Your task to perform on an android device: delete location history Image 0: 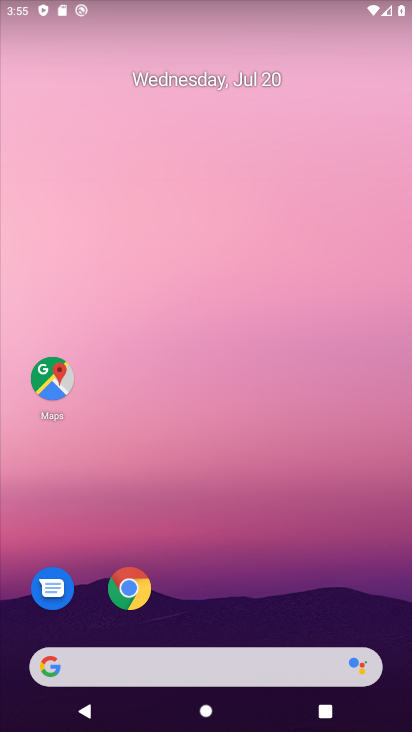
Step 0: drag from (220, 586) to (277, 225)
Your task to perform on an android device: delete location history Image 1: 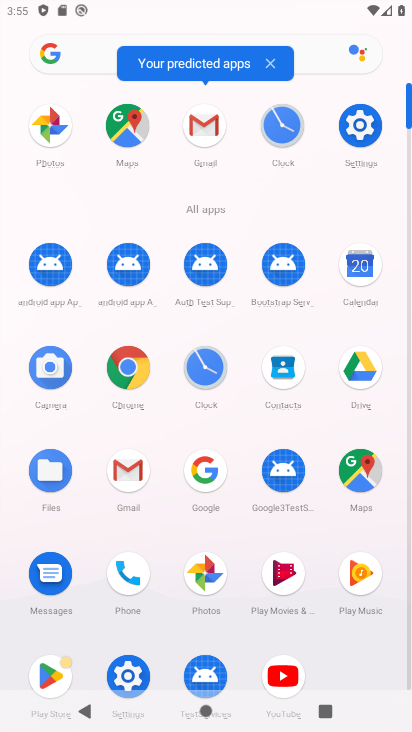
Step 1: click (135, 677)
Your task to perform on an android device: delete location history Image 2: 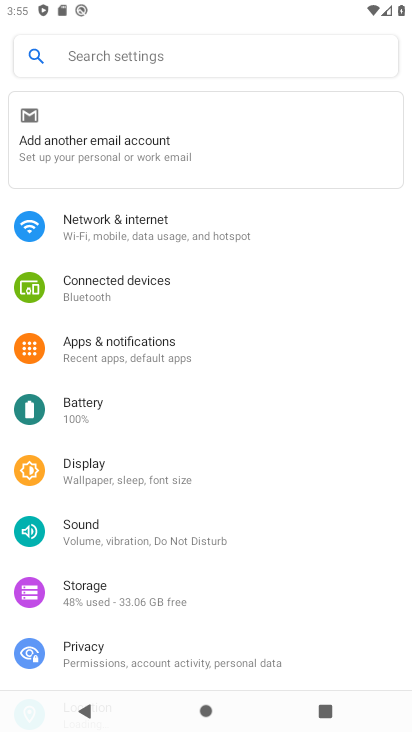
Step 2: drag from (112, 647) to (191, 374)
Your task to perform on an android device: delete location history Image 3: 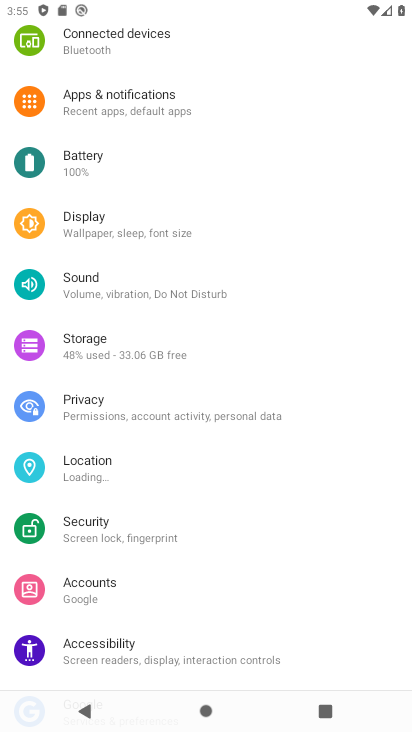
Step 3: click (126, 470)
Your task to perform on an android device: delete location history Image 4: 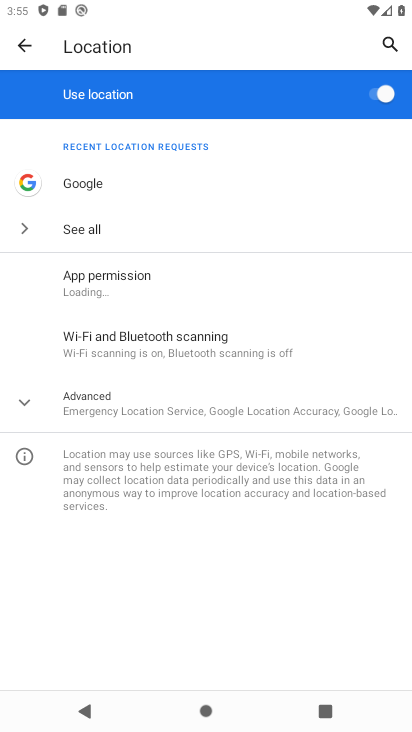
Step 4: click (155, 408)
Your task to perform on an android device: delete location history Image 5: 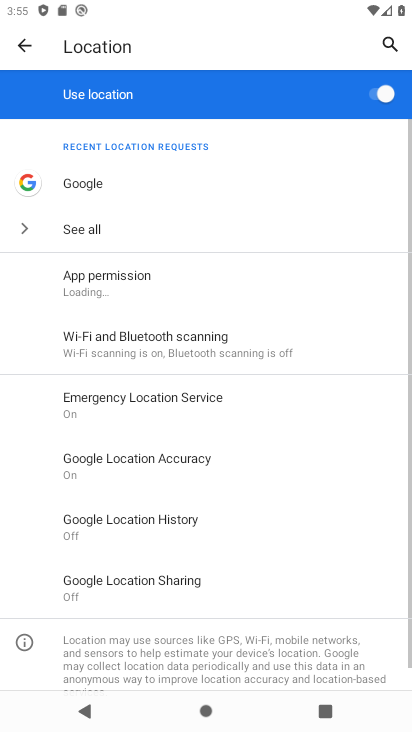
Step 5: drag from (167, 629) to (246, 423)
Your task to perform on an android device: delete location history Image 6: 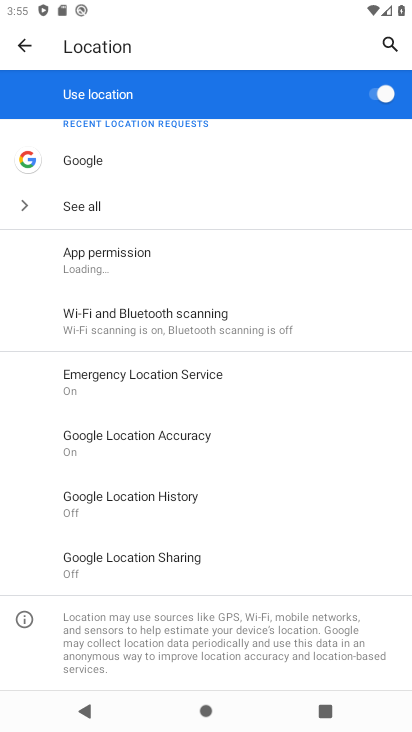
Step 6: click (158, 511)
Your task to perform on an android device: delete location history Image 7: 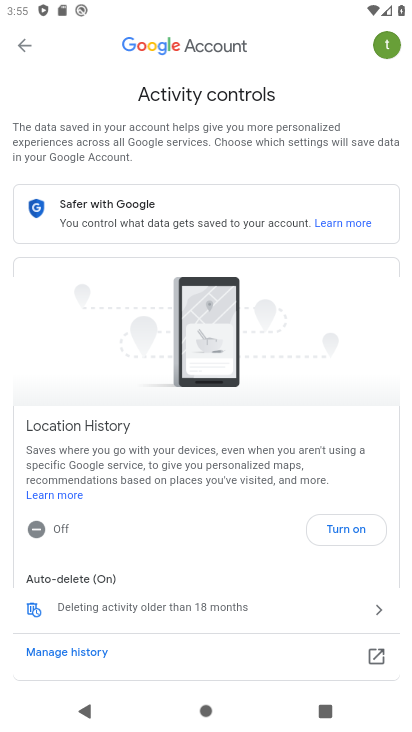
Step 7: click (74, 650)
Your task to perform on an android device: delete location history Image 8: 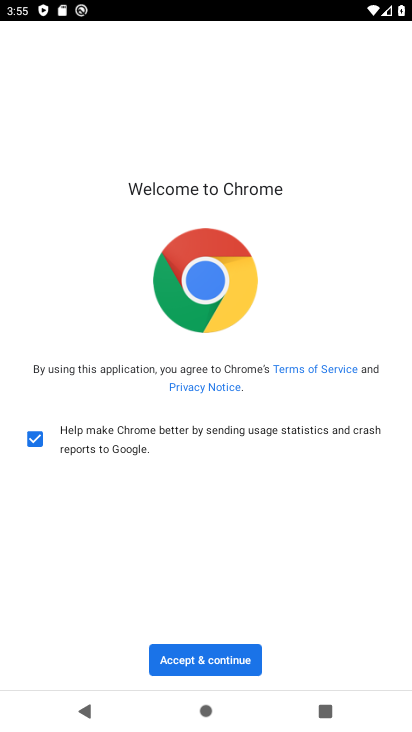
Step 8: click (220, 664)
Your task to perform on an android device: delete location history Image 9: 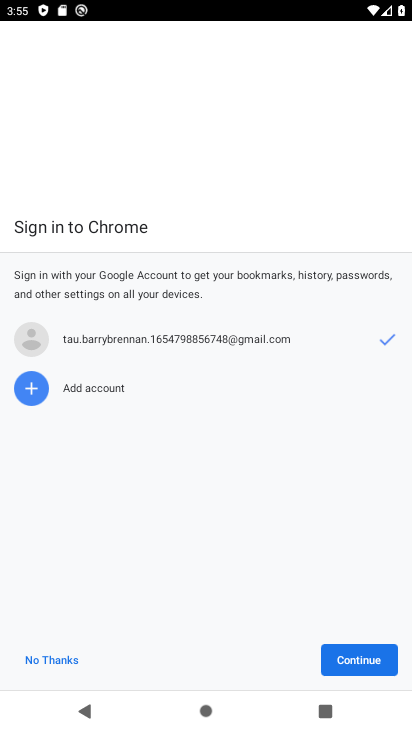
Step 9: click (394, 658)
Your task to perform on an android device: delete location history Image 10: 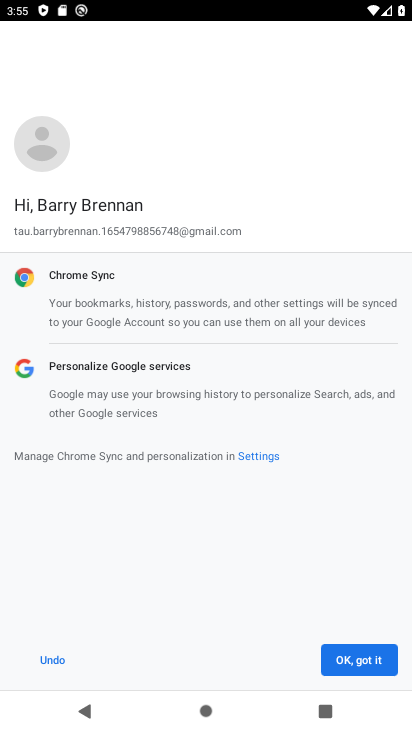
Step 10: click (377, 658)
Your task to perform on an android device: delete location history Image 11: 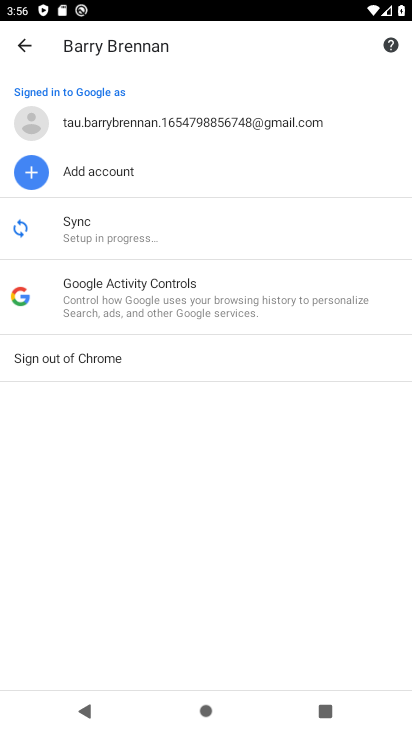
Step 11: press back button
Your task to perform on an android device: delete location history Image 12: 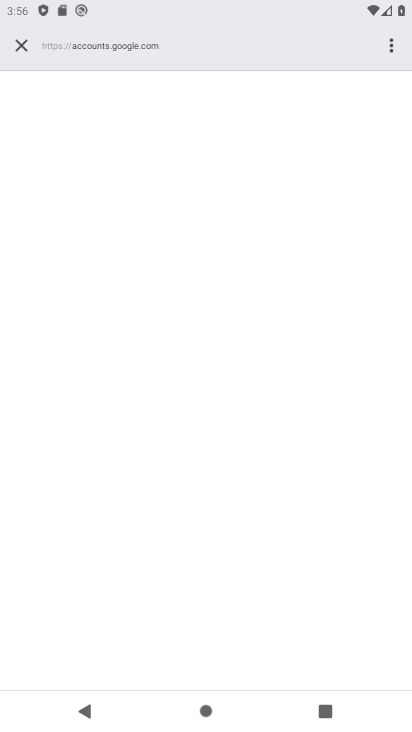
Step 12: press back button
Your task to perform on an android device: delete location history Image 13: 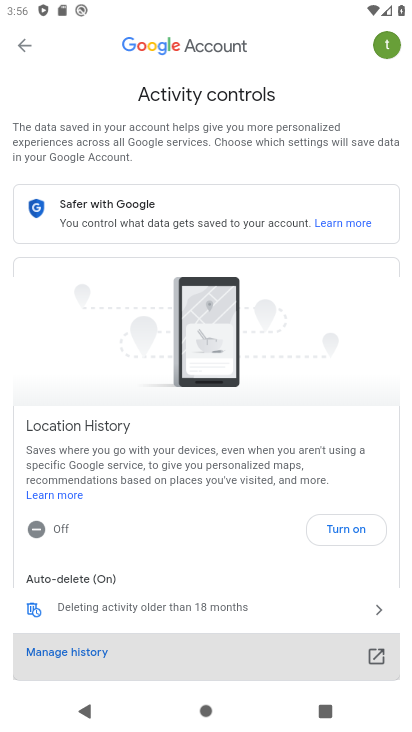
Step 13: click (83, 654)
Your task to perform on an android device: delete location history Image 14: 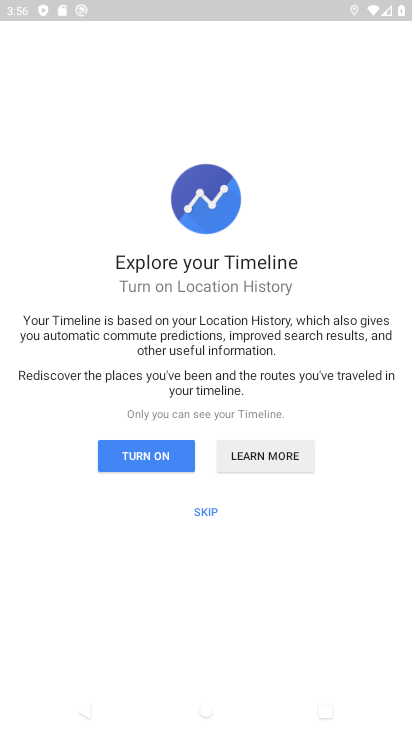
Step 14: click (212, 512)
Your task to perform on an android device: delete location history Image 15: 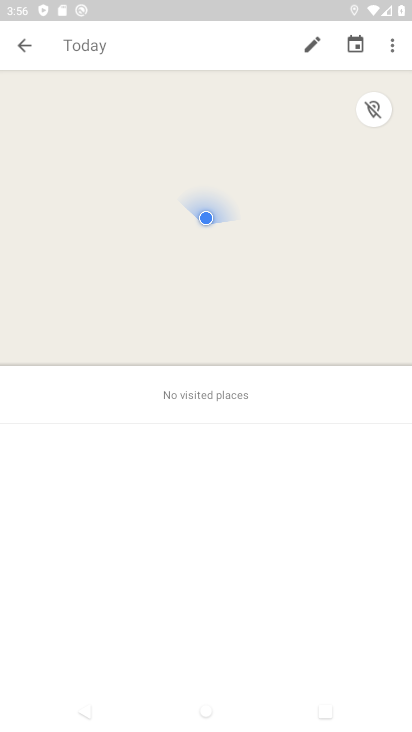
Step 15: task complete